Your task to perform on an android device: Open sound settings Image 0: 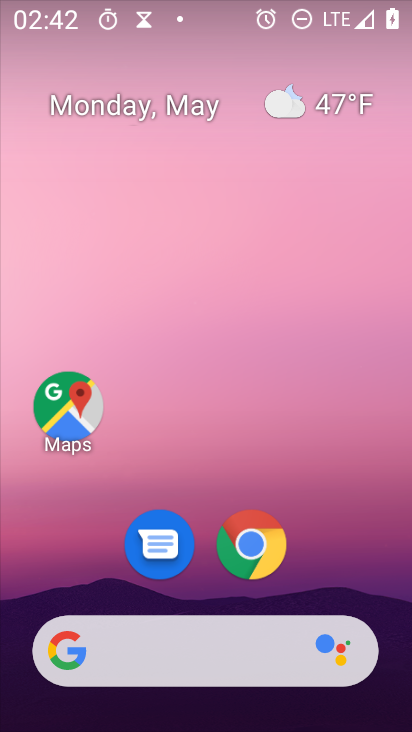
Step 0: drag from (339, 568) to (325, 45)
Your task to perform on an android device: Open sound settings Image 1: 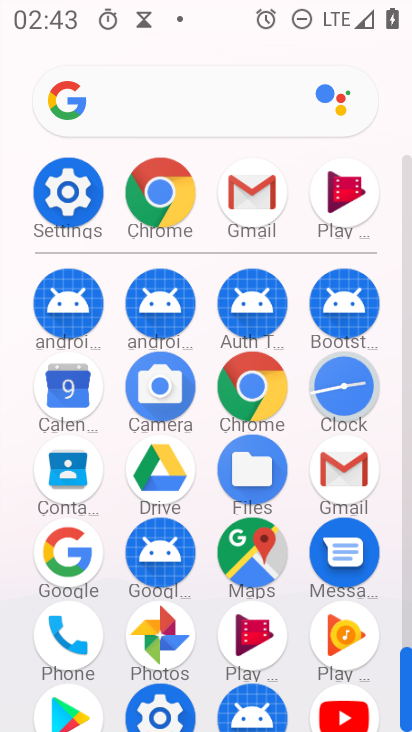
Step 1: click (78, 208)
Your task to perform on an android device: Open sound settings Image 2: 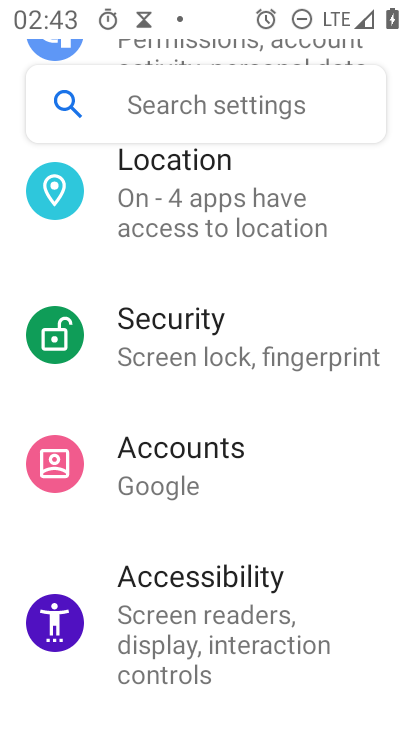
Step 2: drag from (196, 311) to (197, 722)
Your task to perform on an android device: Open sound settings Image 3: 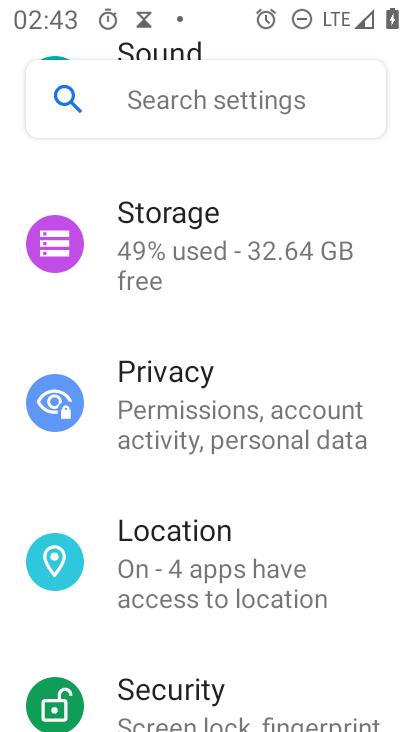
Step 3: drag from (208, 676) to (230, 723)
Your task to perform on an android device: Open sound settings Image 4: 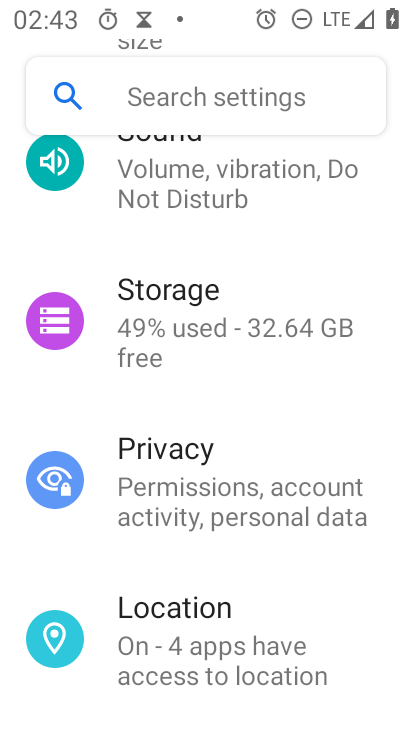
Step 4: click (203, 194)
Your task to perform on an android device: Open sound settings Image 5: 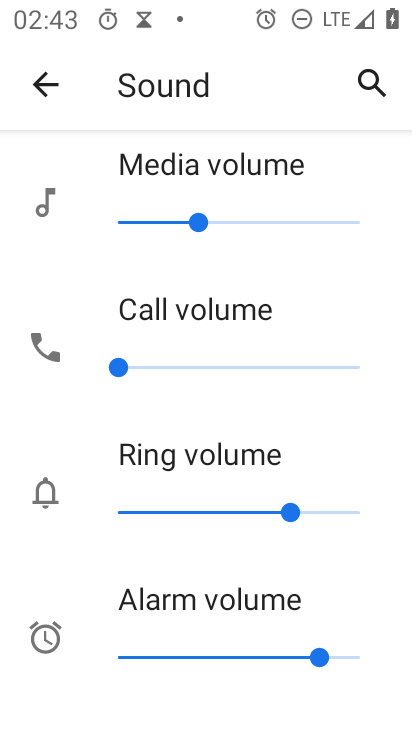
Step 5: task complete